Your task to perform on an android device: check data usage Image 0: 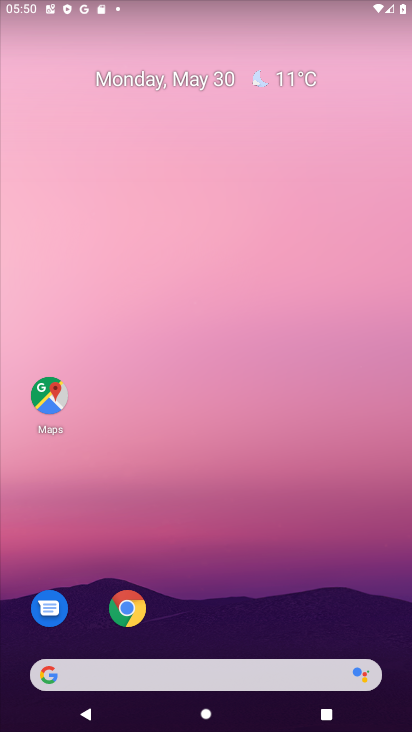
Step 0: drag from (217, 649) to (263, 336)
Your task to perform on an android device: check data usage Image 1: 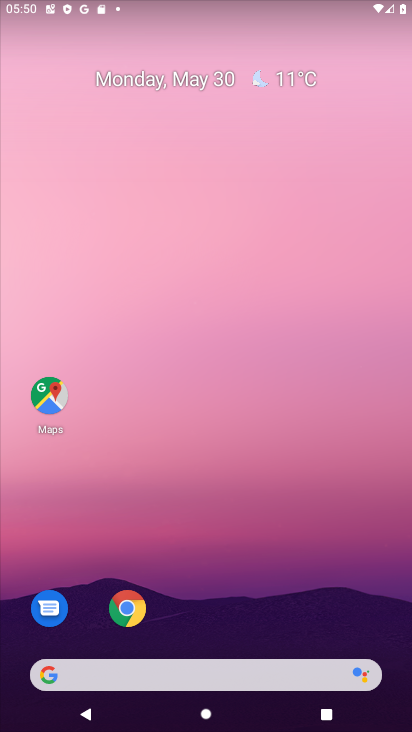
Step 1: drag from (239, 631) to (276, 241)
Your task to perform on an android device: check data usage Image 2: 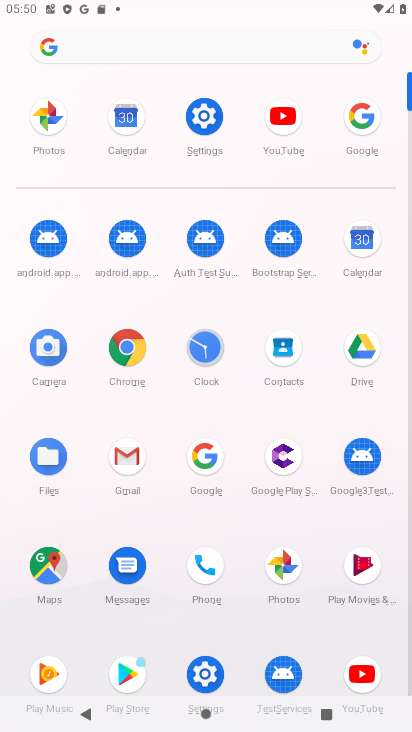
Step 2: click (211, 126)
Your task to perform on an android device: check data usage Image 3: 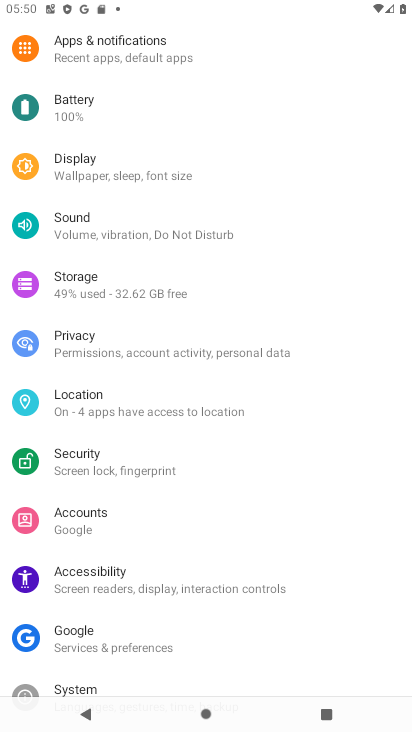
Step 3: drag from (142, 67) to (80, 551)
Your task to perform on an android device: check data usage Image 4: 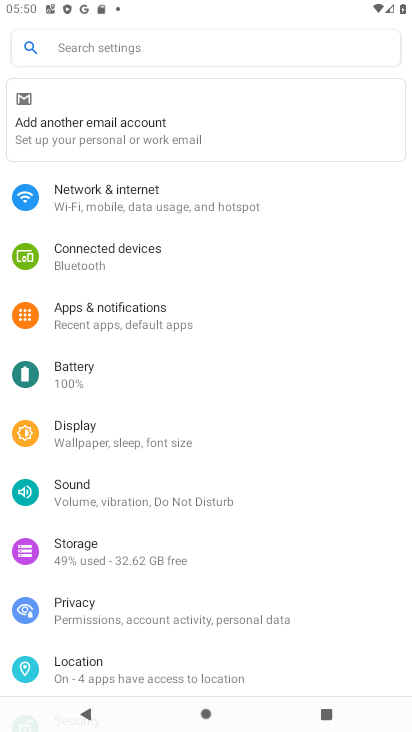
Step 4: click (115, 200)
Your task to perform on an android device: check data usage Image 5: 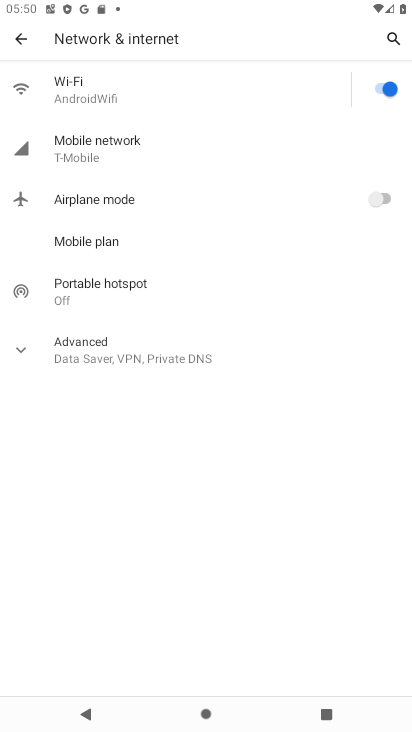
Step 5: click (106, 194)
Your task to perform on an android device: check data usage Image 6: 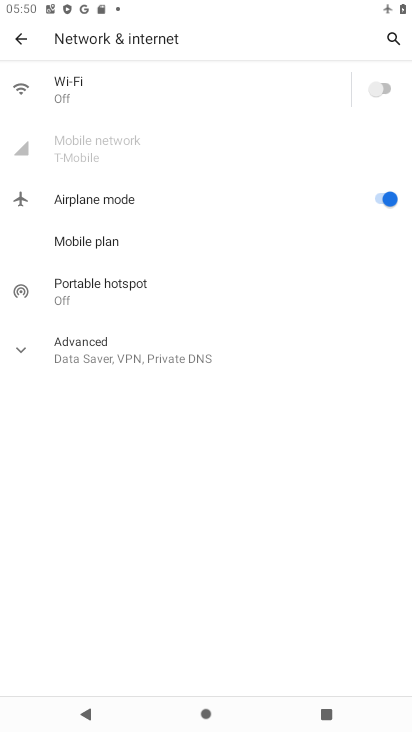
Step 6: click (367, 195)
Your task to perform on an android device: check data usage Image 7: 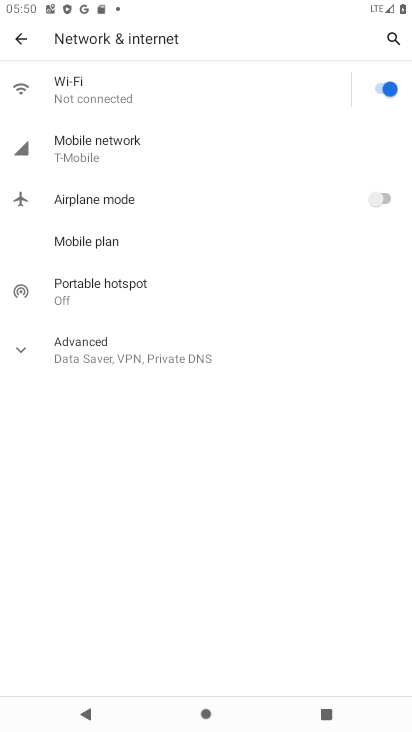
Step 7: click (97, 156)
Your task to perform on an android device: check data usage Image 8: 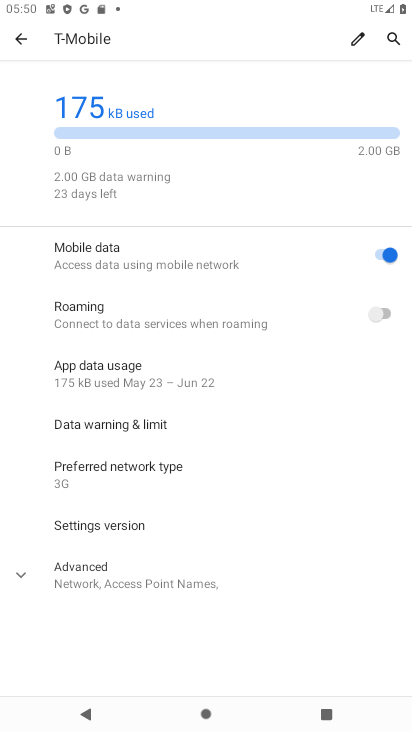
Step 8: task complete